Your task to perform on an android device: allow cookies in the chrome app Image 0: 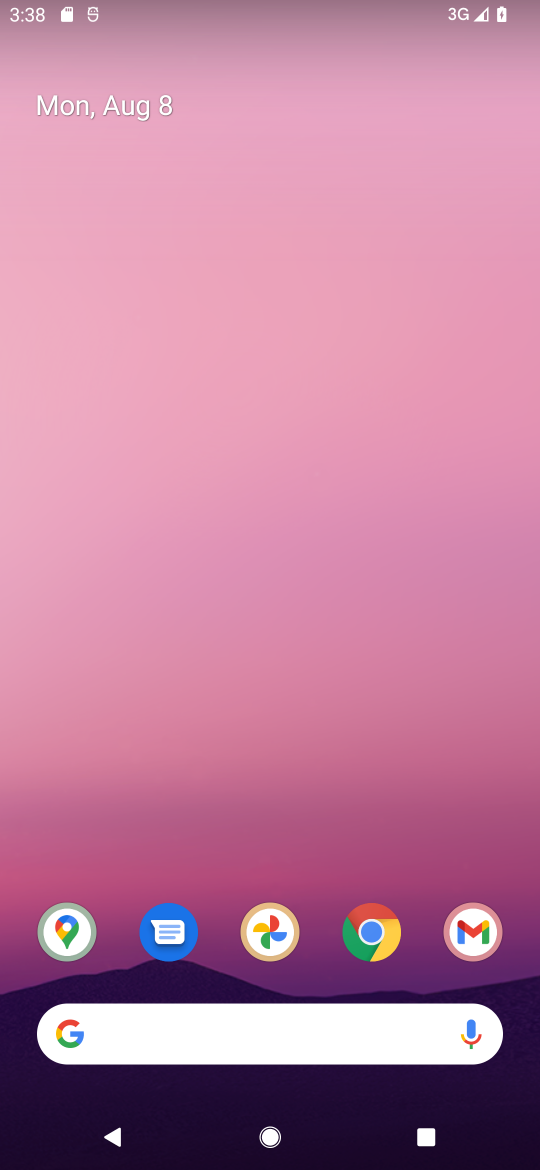
Step 0: drag from (227, 1039) to (22, 214)
Your task to perform on an android device: allow cookies in the chrome app Image 1: 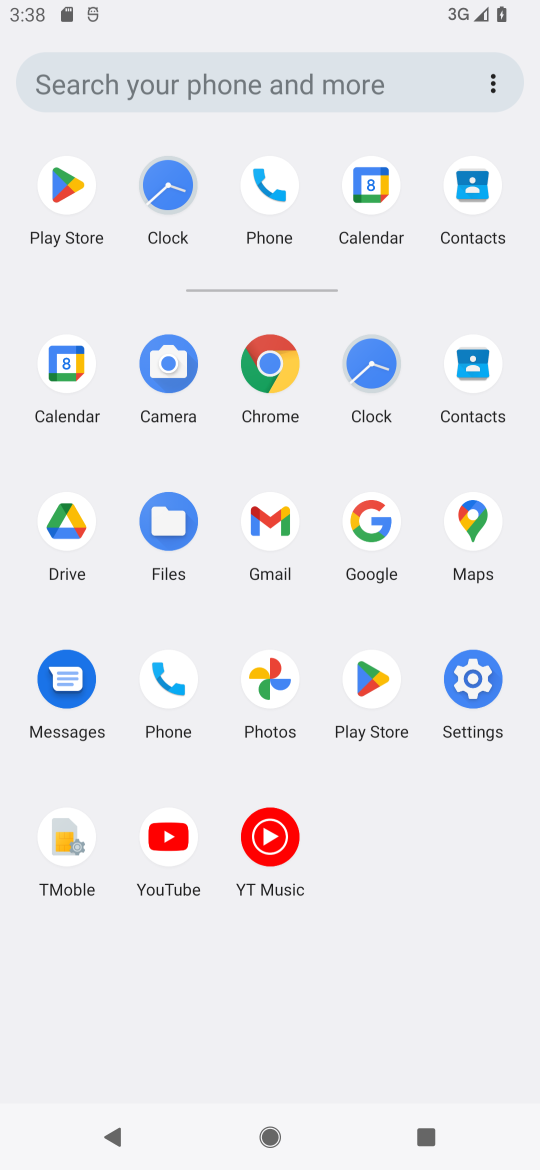
Step 1: click (286, 354)
Your task to perform on an android device: allow cookies in the chrome app Image 2: 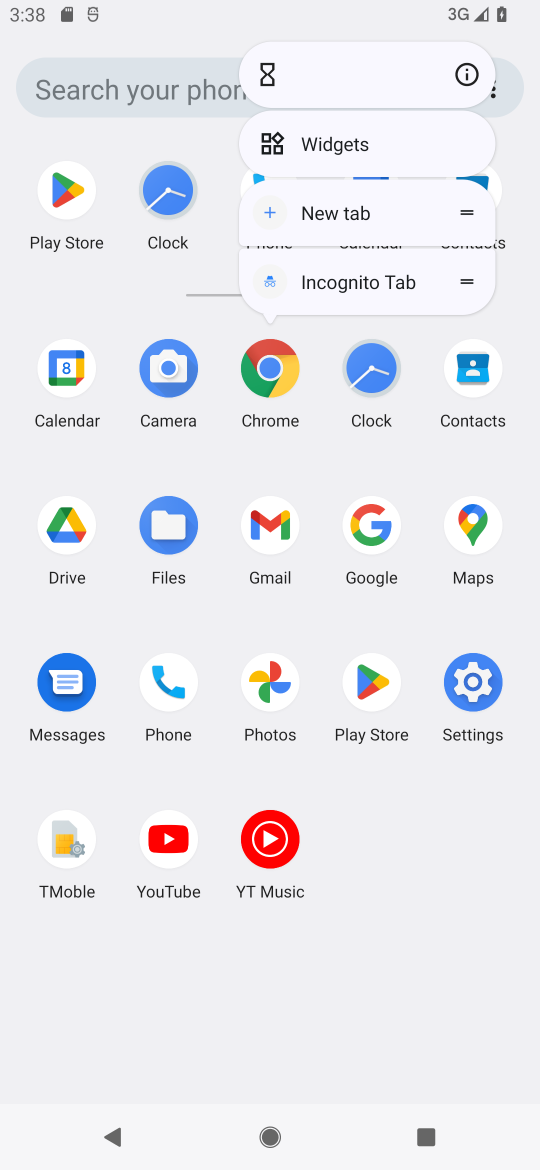
Step 2: click (286, 356)
Your task to perform on an android device: allow cookies in the chrome app Image 3: 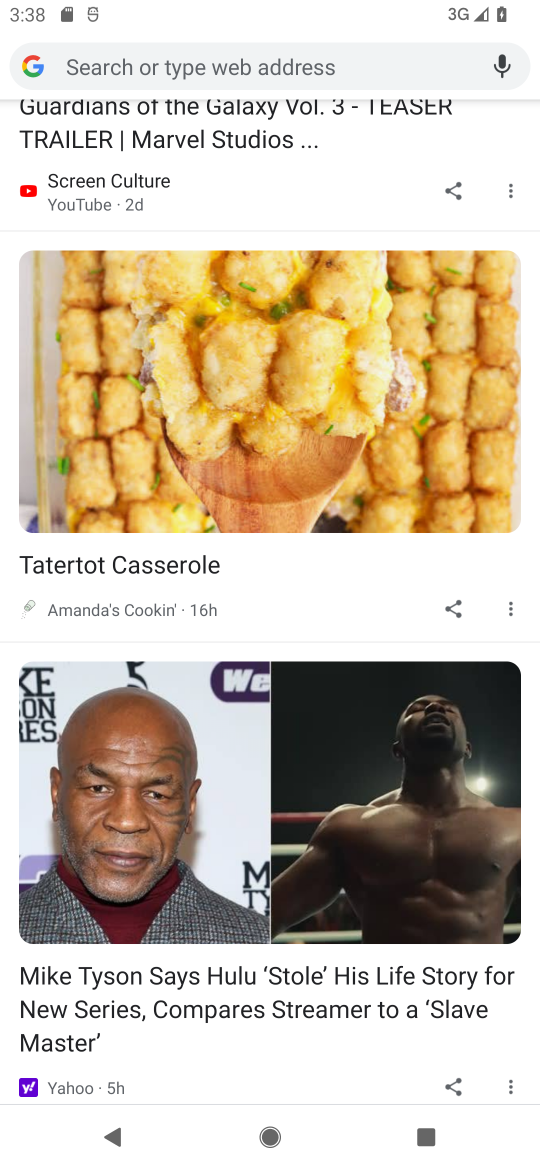
Step 3: drag from (444, 443) to (476, 873)
Your task to perform on an android device: allow cookies in the chrome app Image 4: 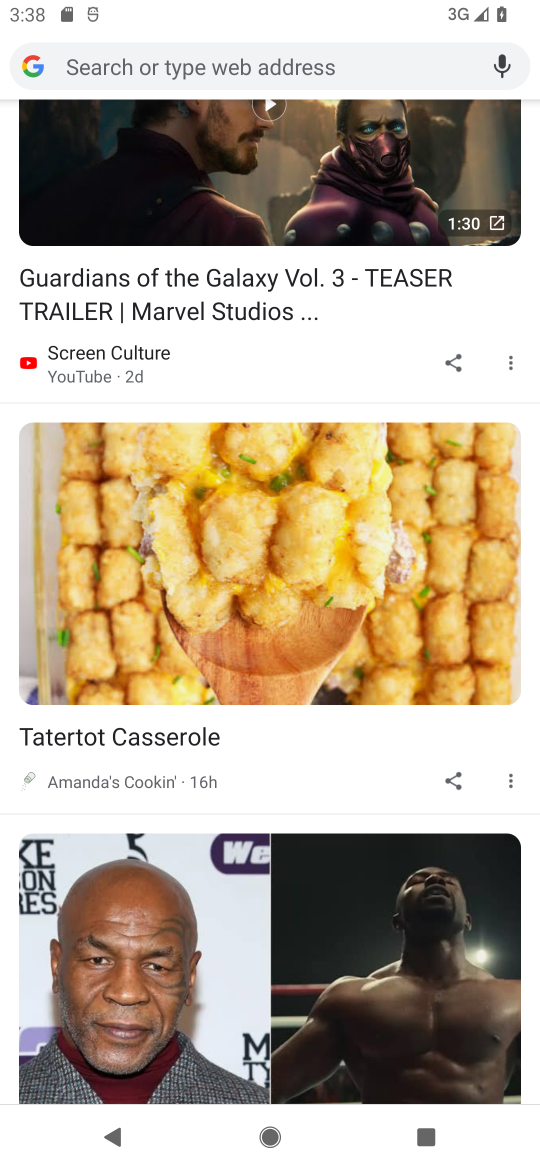
Step 4: drag from (347, 227) to (363, 1030)
Your task to perform on an android device: allow cookies in the chrome app Image 5: 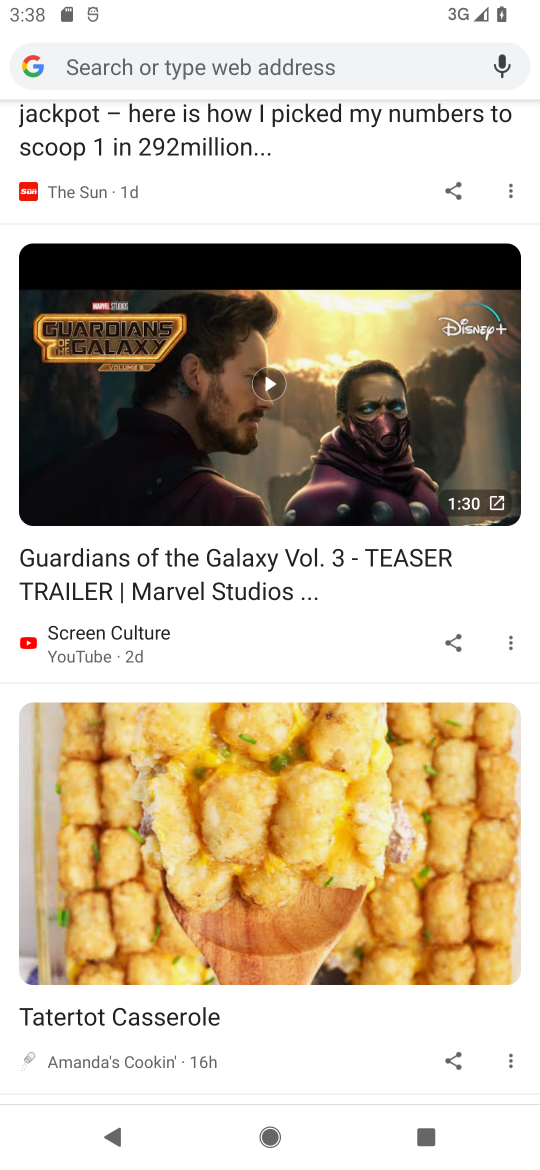
Step 5: drag from (213, 447) to (358, 1041)
Your task to perform on an android device: allow cookies in the chrome app Image 6: 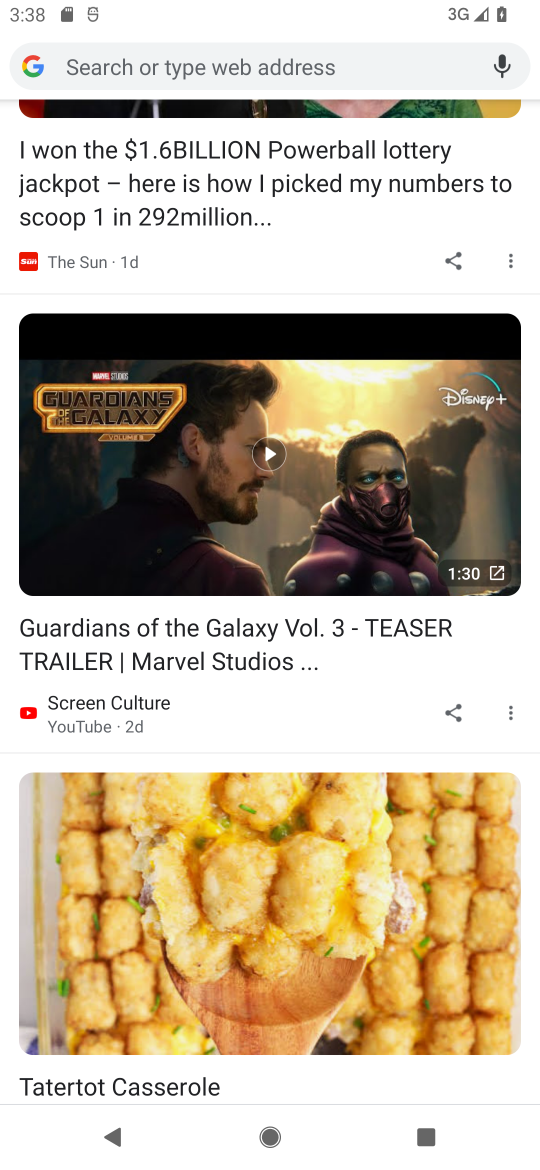
Step 6: drag from (166, 438) to (327, 1120)
Your task to perform on an android device: allow cookies in the chrome app Image 7: 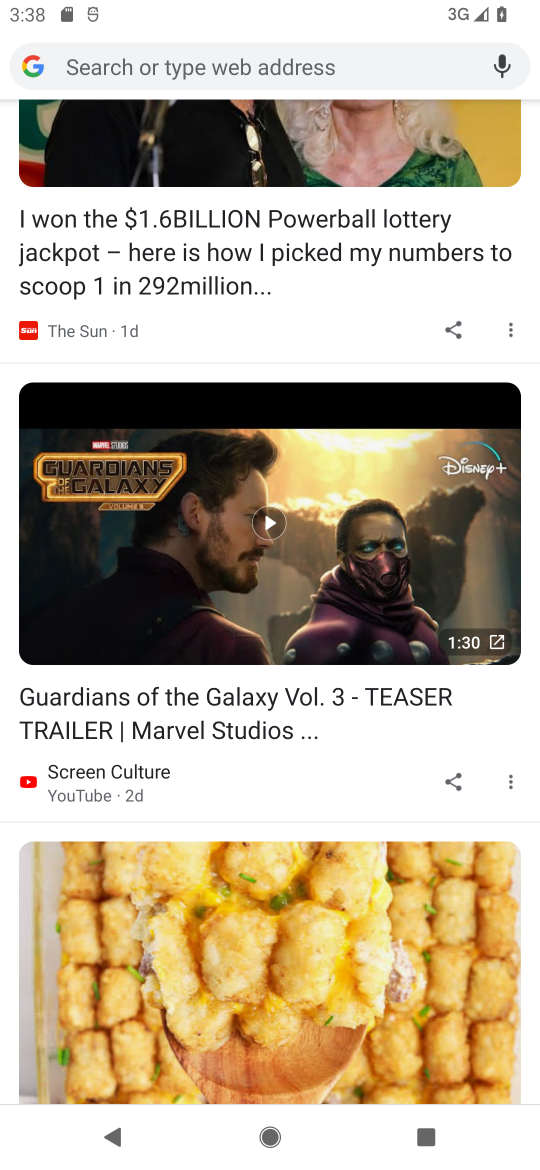
Step 7: drag from (235, 696) to (308, 1117)
Your task to perform on an android device: allow cookies in the chrome app Image 8: 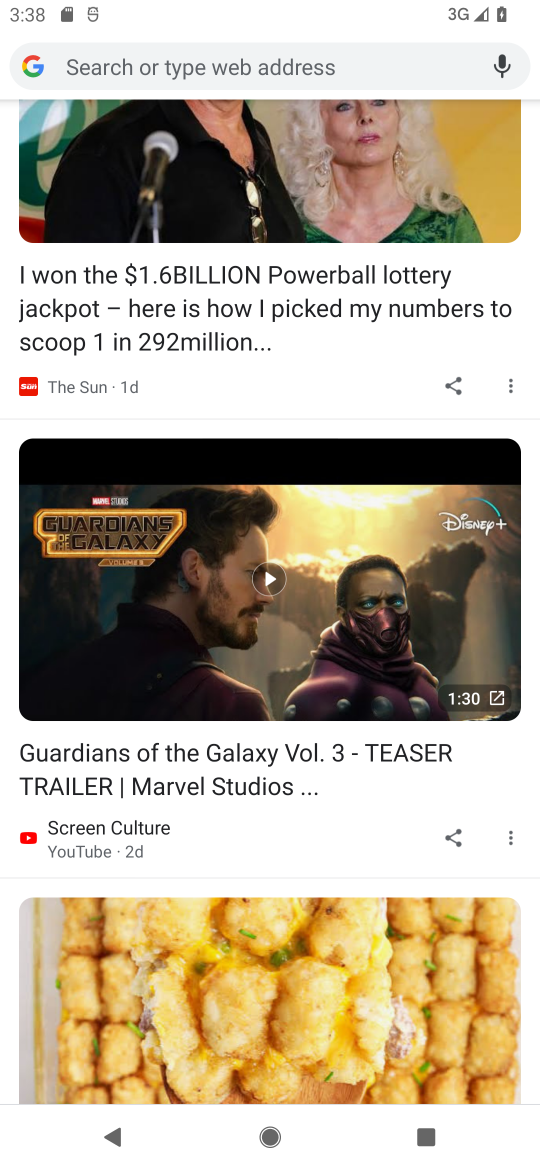
Step 8: drag from (170, 240) to (274, 1116)
Your task to perform on an android device: allow cookies in the chrome app Image 9: 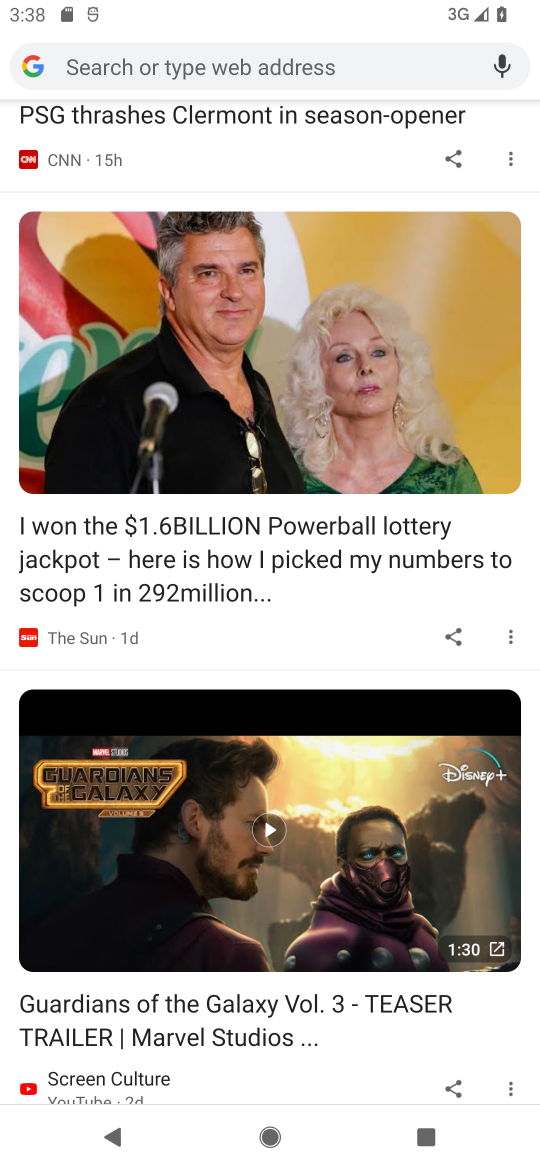
Step 9: drag from (256, 522) to (344, 1106)
Your task to perform on an android device: allow cookies in the chrome app Image 10: 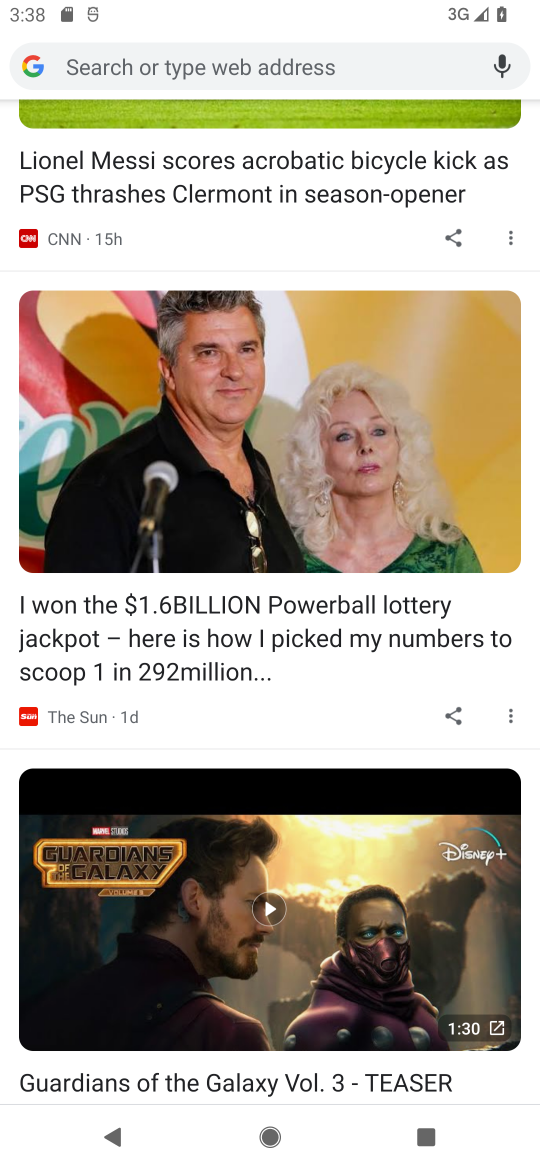
Step 10: drag from (158, 261) to (272, 1097)
Your task to perform on an android device: allow cookies in the chrome app Image 11: 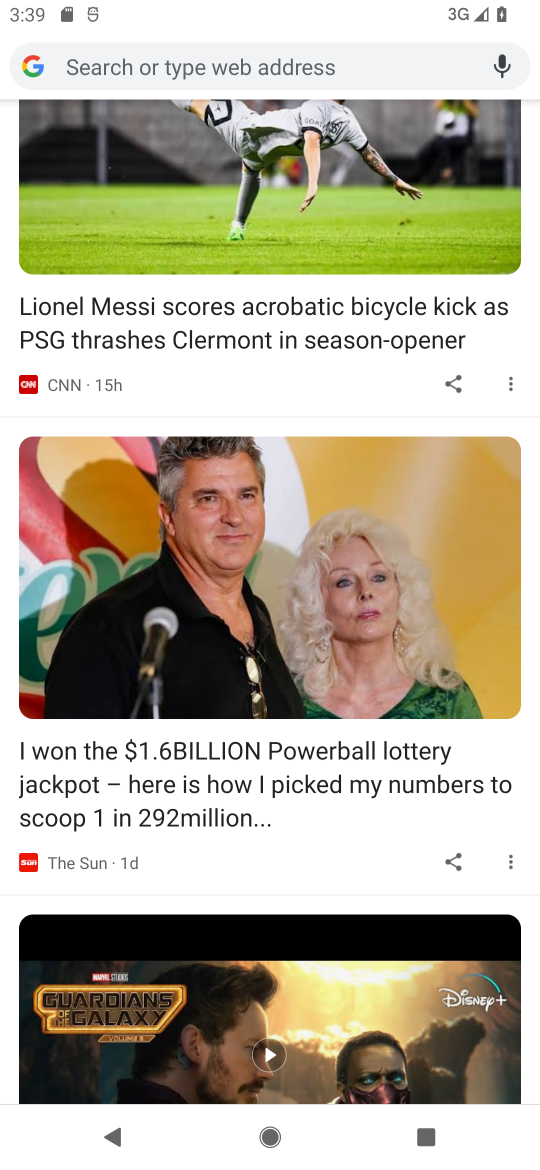
Step 11: drag from (259, 360) to (364, 1141)
Your task to perform on an android device: allow cookies in the chrome app Image 12: 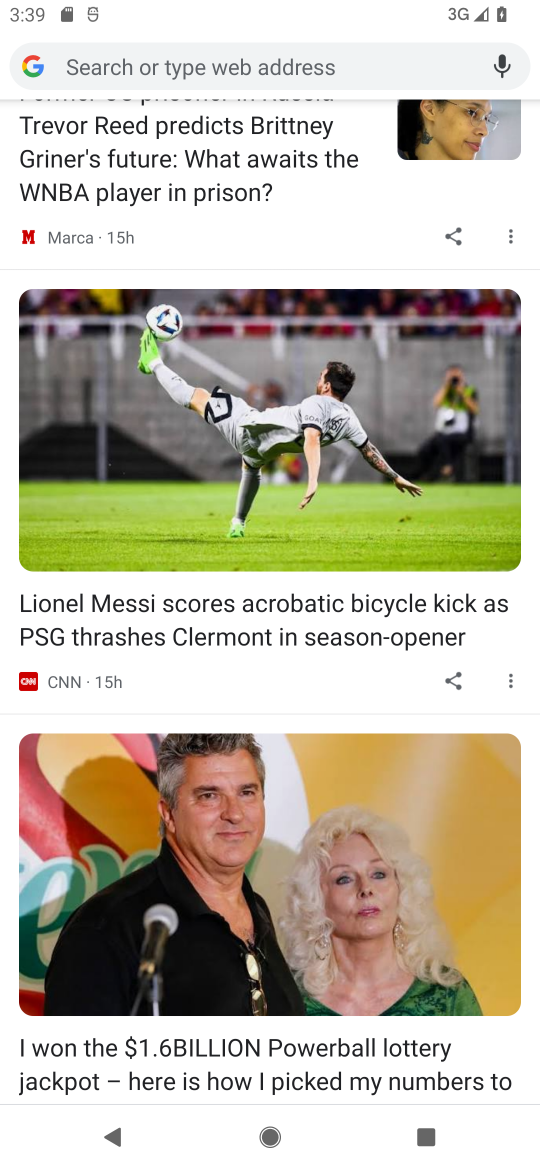
Step 12: drag from (241, 251) to (368, 1168)
Your task to perform on an android device: allow cookies in the chrome app Image 13: 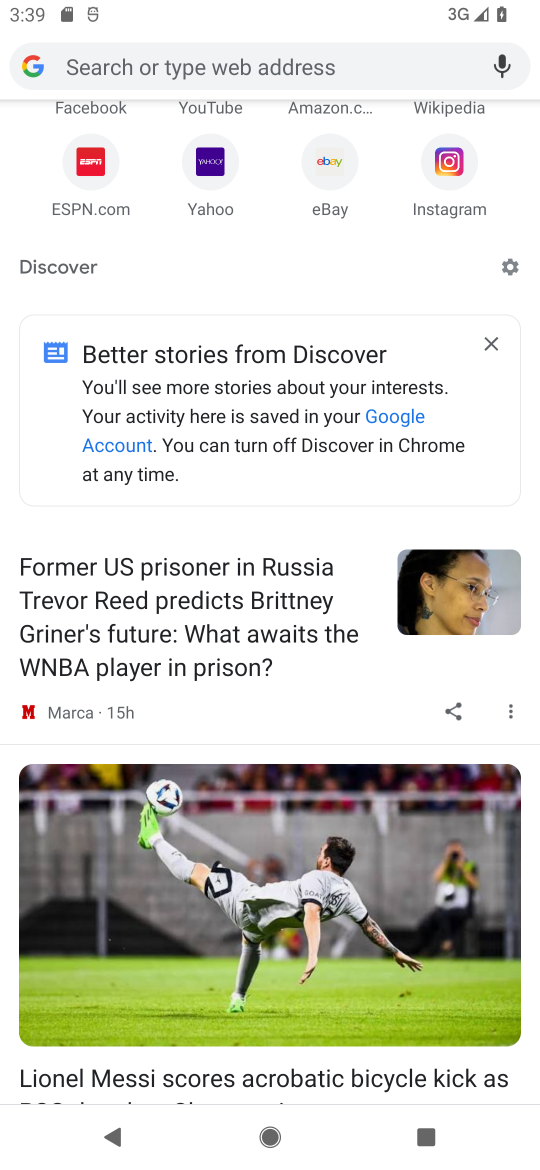
Step 13: drag from (285, 315) to (400, 1166)
Your task to perform on an android device: allow cookies in the chrome app Image 14: 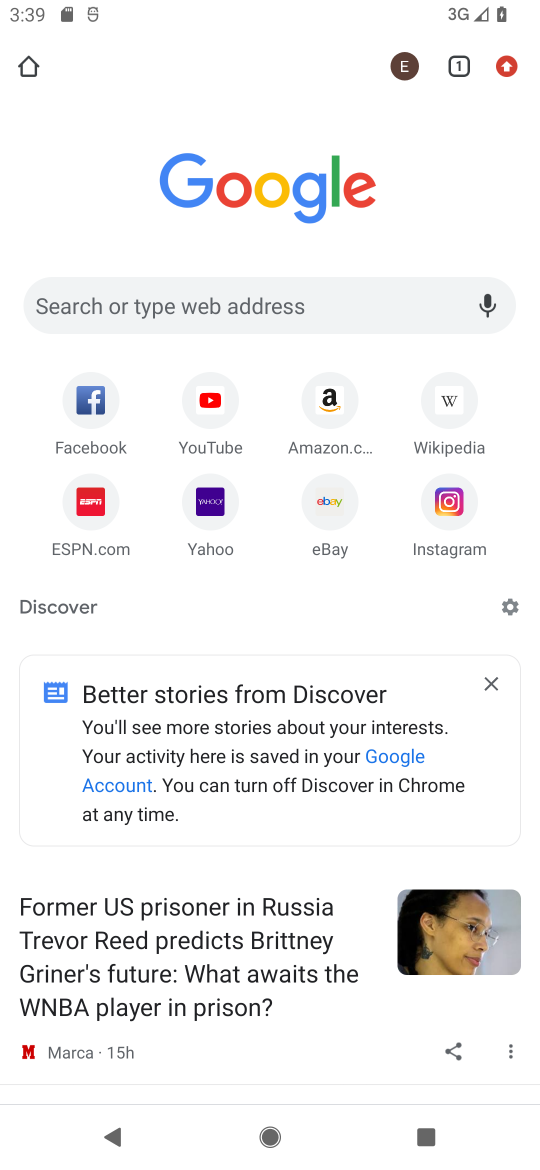
Step 14: drag from (507, 49) to (334, 651)
Your task to perform on an android device: allow cookies in the chrome app Image 15: 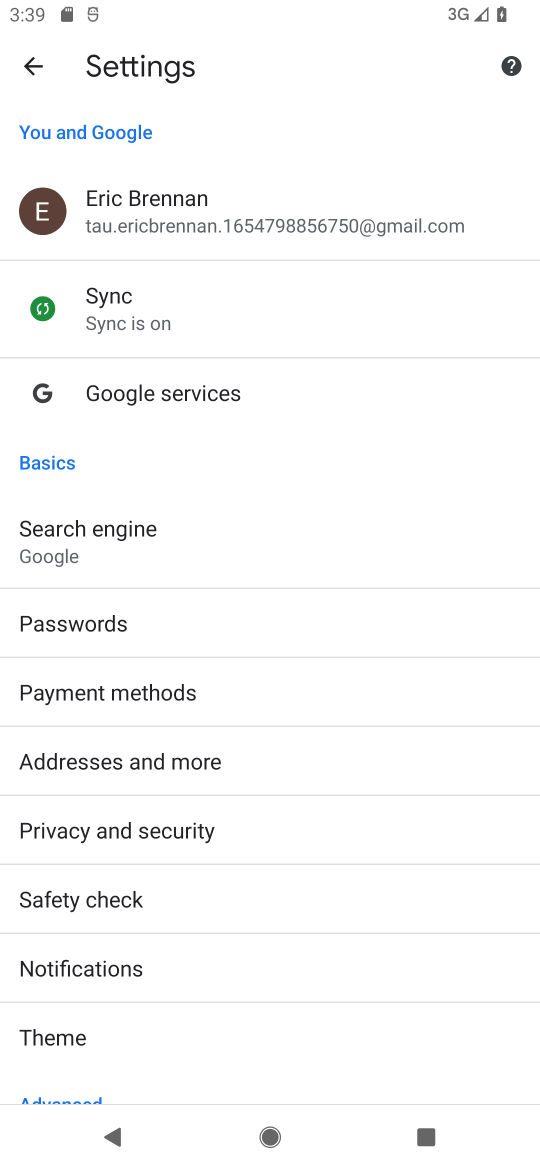
Step 15: drag from (218, 958) to (76, 7)
Your task to perform on an android device: allow cookies in the chrome app Image 16: 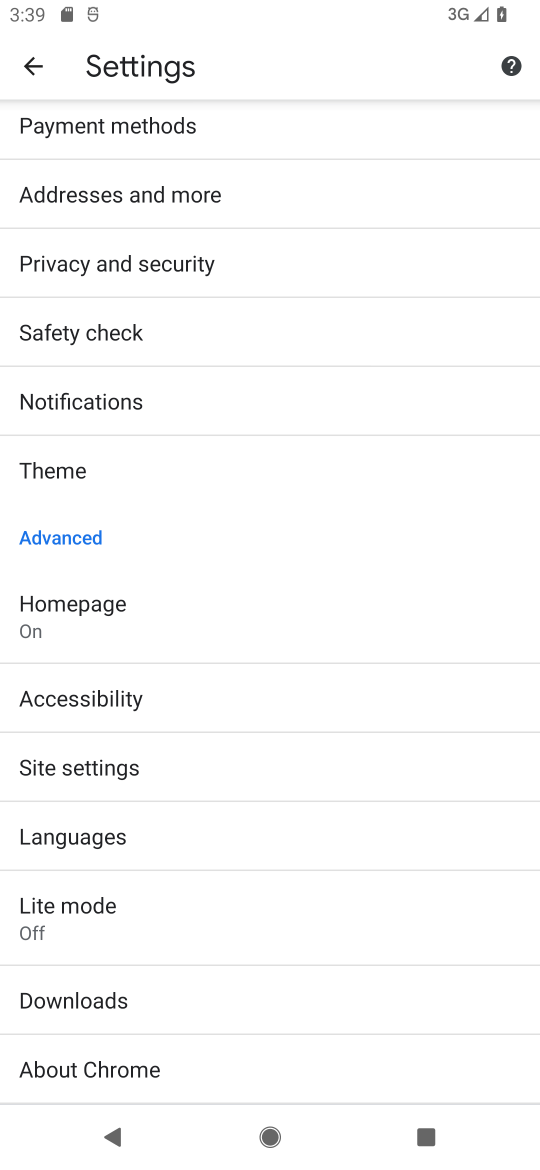
Step 16: click (180, 776)
Your task to perform on an android device: allow cookies in the chrome app Image 17: 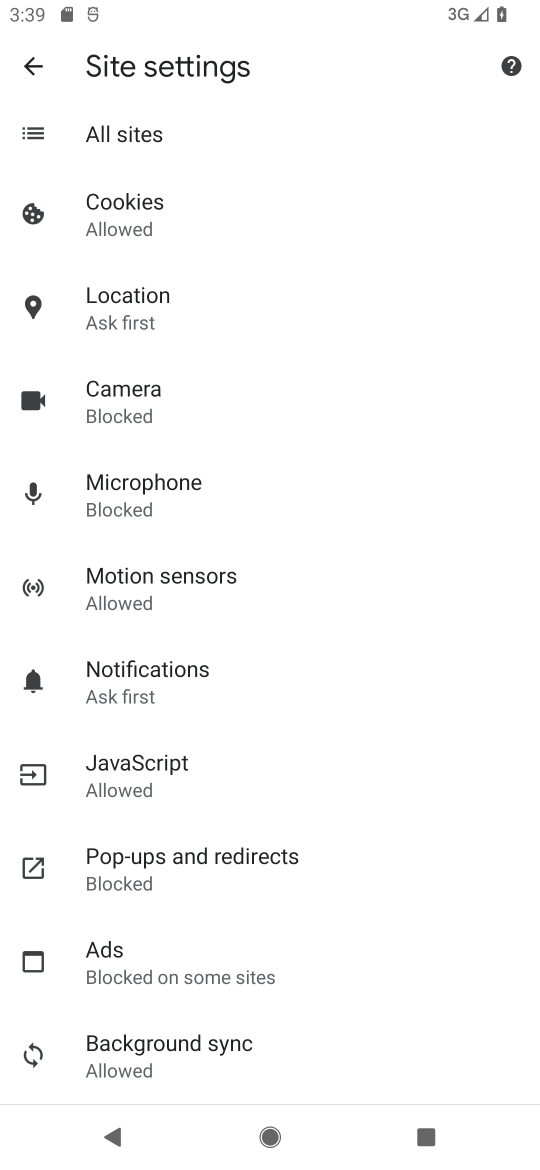
Step 17: click (113, 237)
Your task to perform on an android device: allow cookies in the chrome app Image 18: 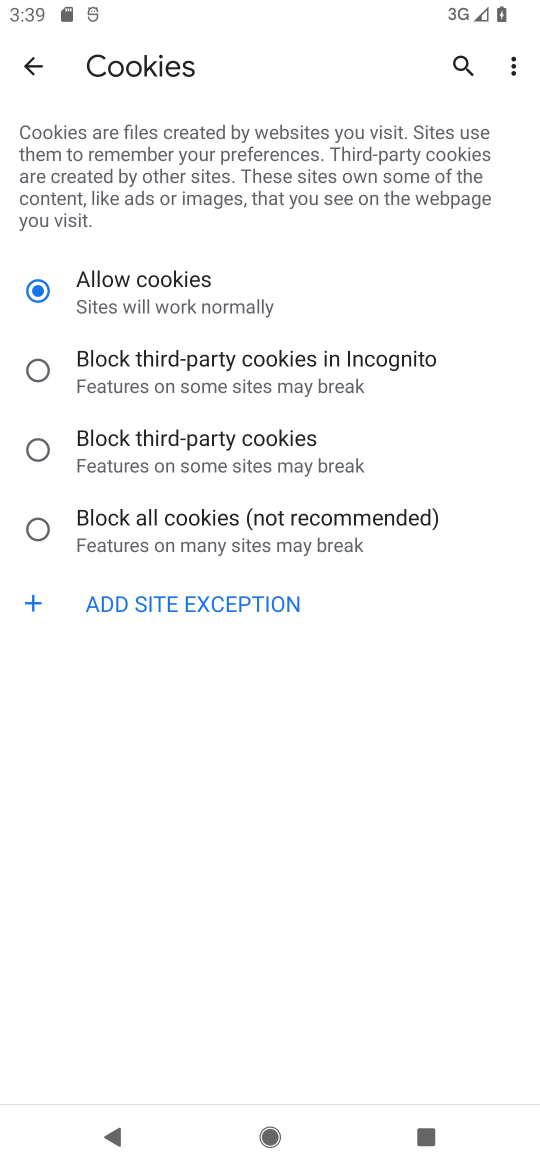
Step 18: task complete